Your task to perform on an android device: change notification settings in the gmail app Image 0: 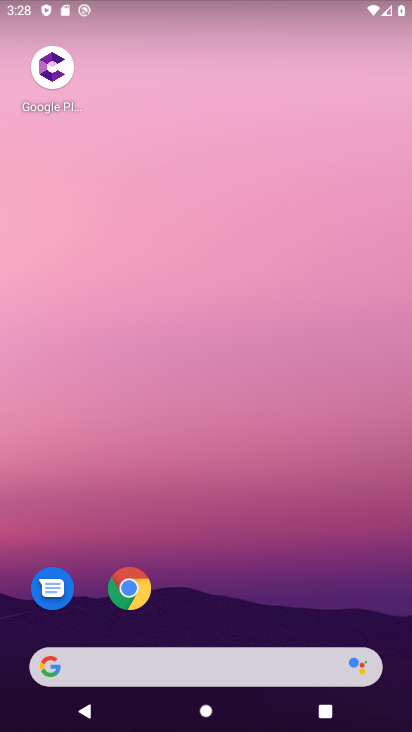
Step 0: drag from (279, 582) to (237, 146)
Your task to perform on an android device: change notification settings in the gmail app Image 1: 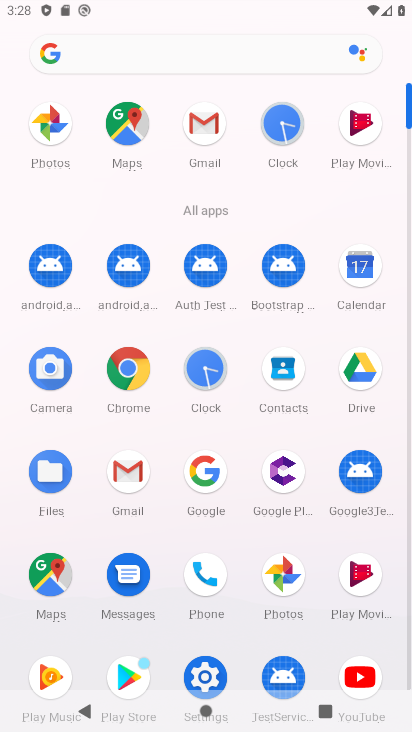
Step 1: click (204, 118)
Your task to perform on an android device: change notification settings in the gmail app Image 2: 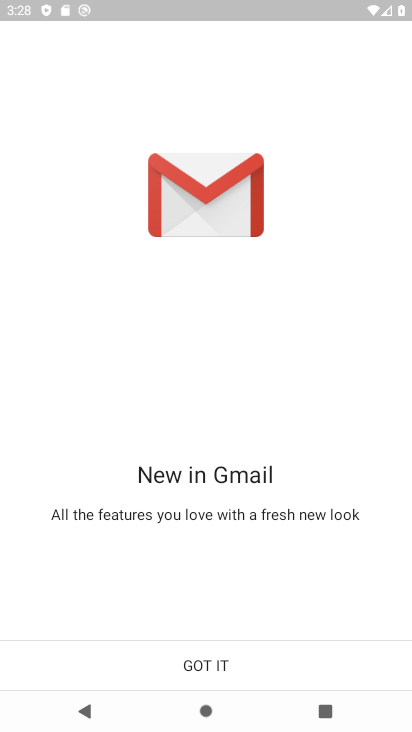
Step 2: click (206, 660)
Your task to perform on an android device: change notification settings in the gmail app Image 3: 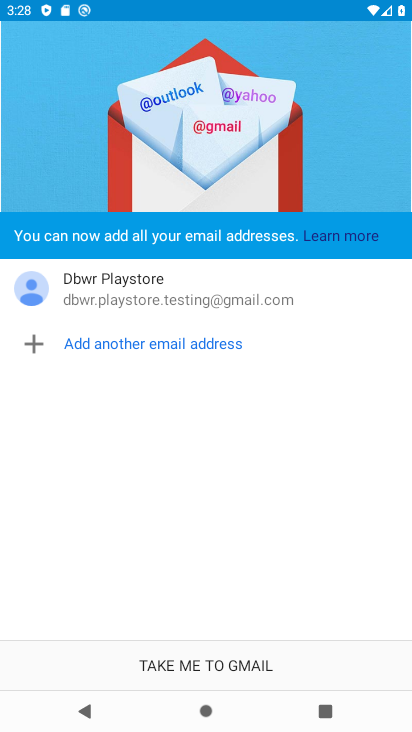
Step 3: click (206, 660)
Your task to perform on an android device: change notification settings in the gmail app Image 4: 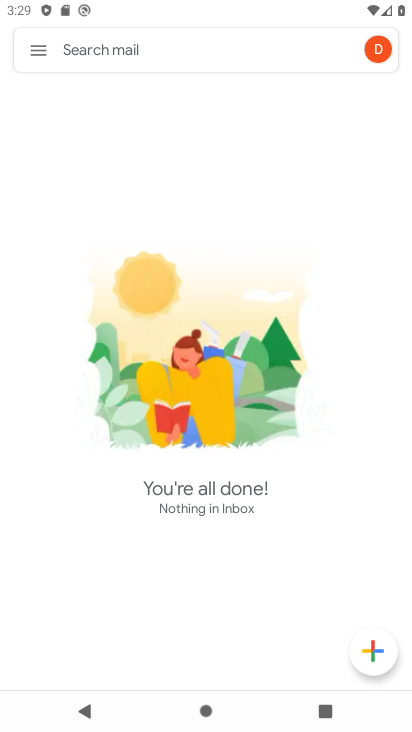
Step 4: click (39, 50)
Your task to perform on an android device: change notification settings in the gmail app Image 5: 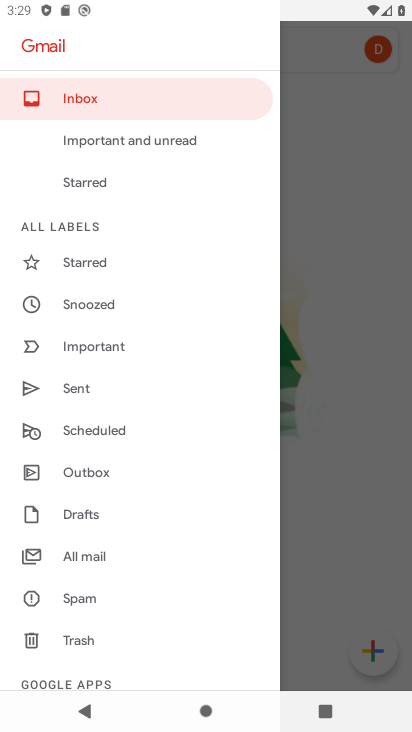
Step 5: drag from (108, 573) to (103, 463)
Your task to perform on an android device: change notification settings in the gmail app Image 6: 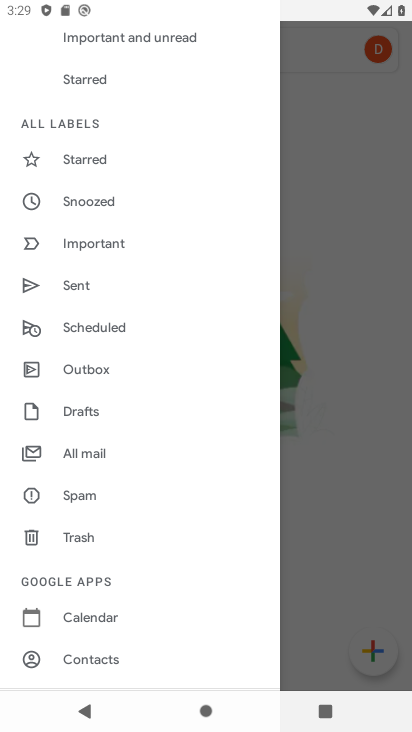
Step 6: drag from (104, 514) to (122, 448)
Your task to perform on an android device: change notification settings in the gmail app Image 7: 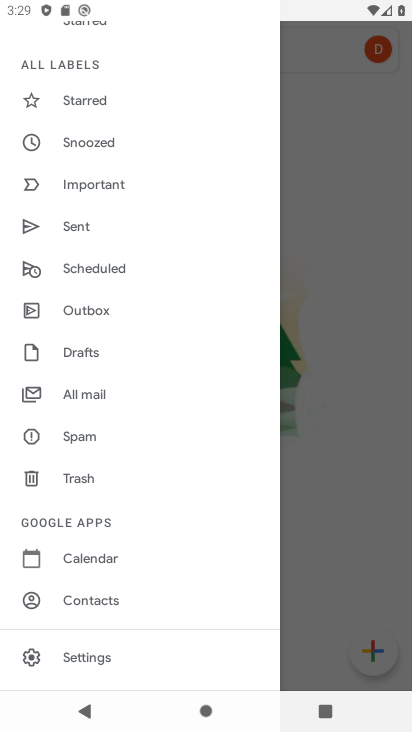
Step 7: drag from (127, 572) to (148, 490)
Your task to perform on an android device: change notification settings in the gmail app Image 8: 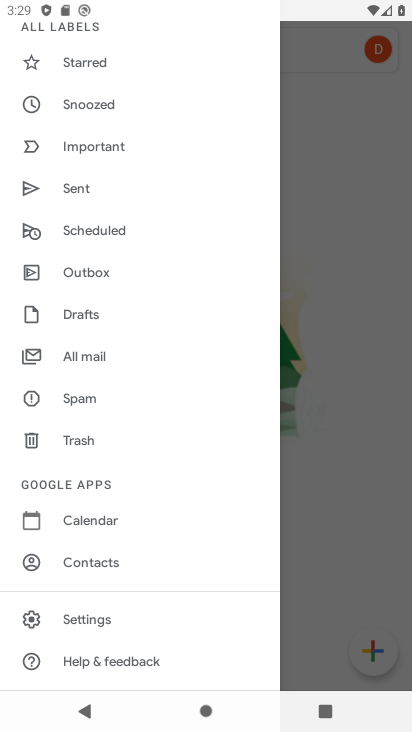
Step 8: click (85, 622)
Your task to perform on an android device: change notification settings in the gmail app Image 9: 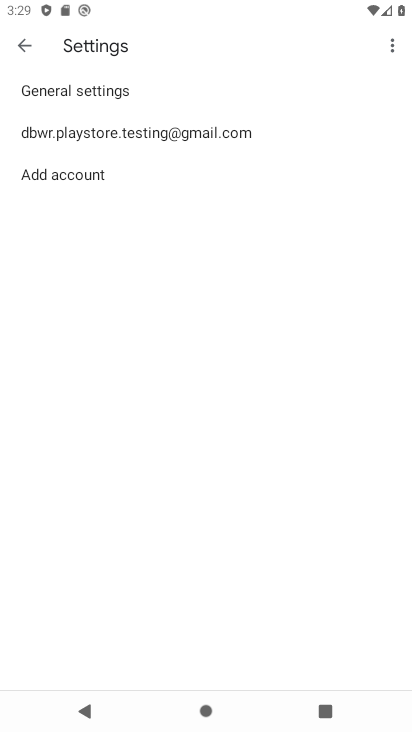
Step 9: click (146, 134)
Your task to perform on an android device: change notification settings in the gmail app Image 10: 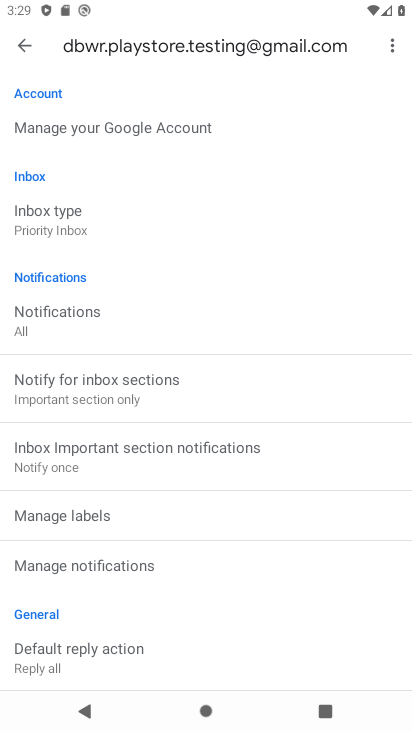
Step 10: drag from (103, 498) to (134, 382)
Your task to perform on an android device: change notification settings in the gmail app Image 11: 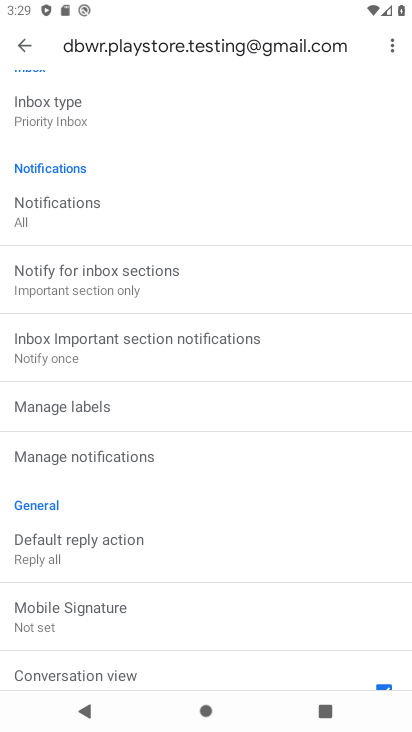
Step 11: click (110, 453)
Your task to perform on an android device: change notification settings in the gmail app Image 12: 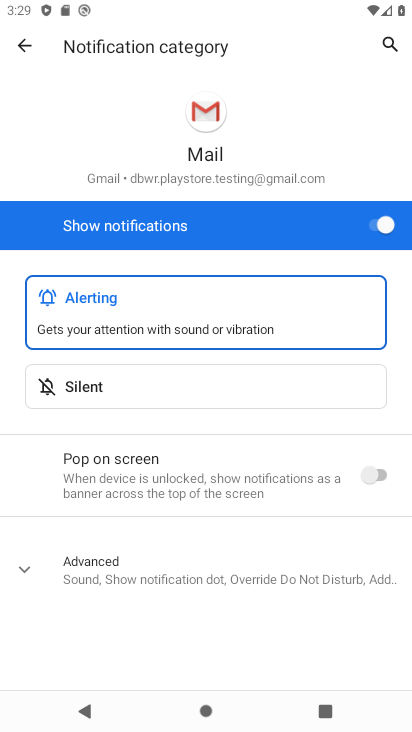
Step 12: click (389, 224)
Your task to perform on an android device: change notification settings in the gmail app Image 13: 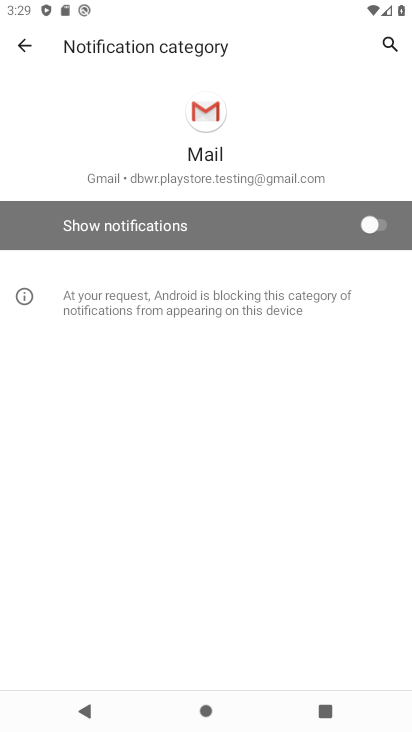
Step 13: task complete